Your task to perform on an android device: turn off smart reply in the gmail app Image 0: 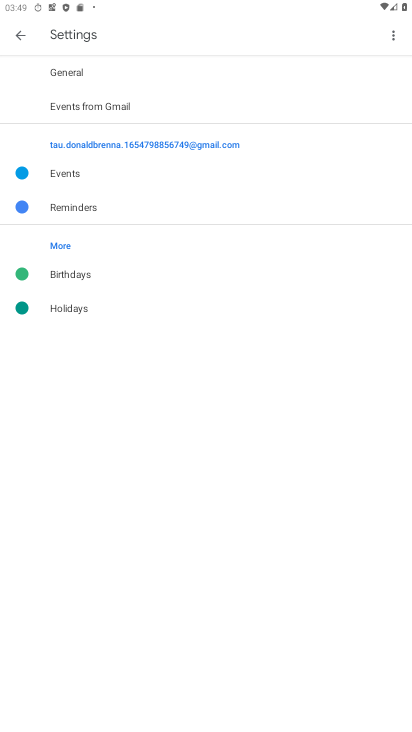
Step 0: press home button
Your task to perform on an android device: turn off smart reply in the gmail app Image 1: 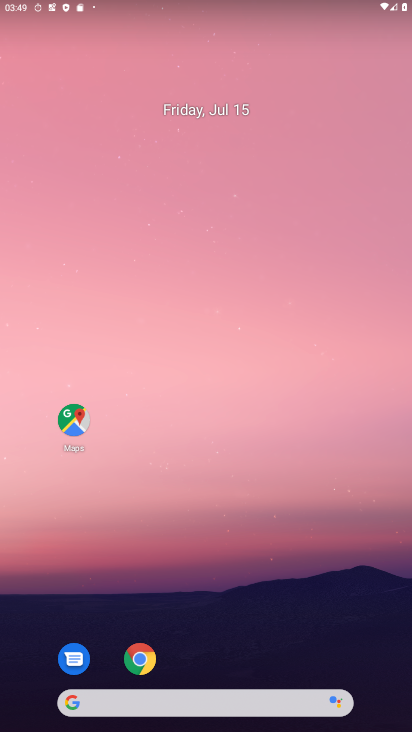
Step 1: drag from (263, 637) to (305, 1)
Your task to perform on an android device: turn off smart reply in the gmail app Image 2: 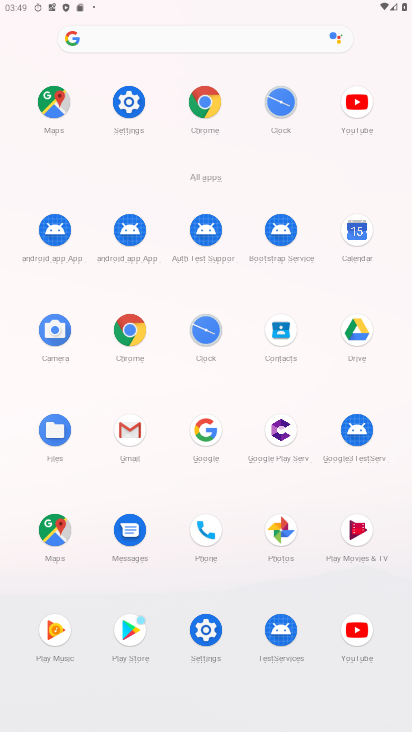
Step 2: click (128, 438)
Your task to perform on an android device: turn off smart reply in the gmail app Image 3: 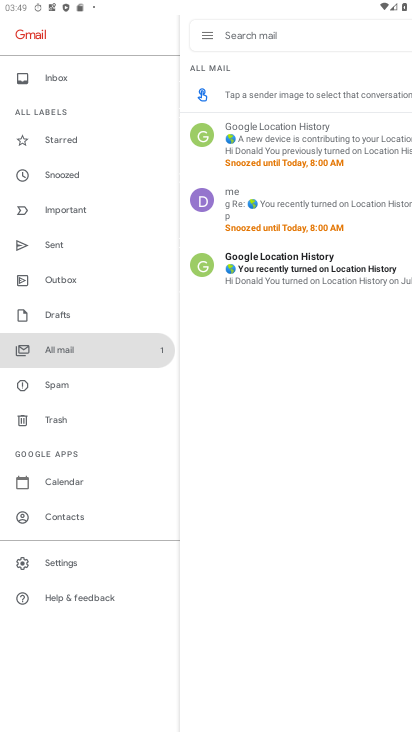
Step 3: click (55, 560)
Your task to perform on an android device: turn off smart reply in the gmail app Image 4: 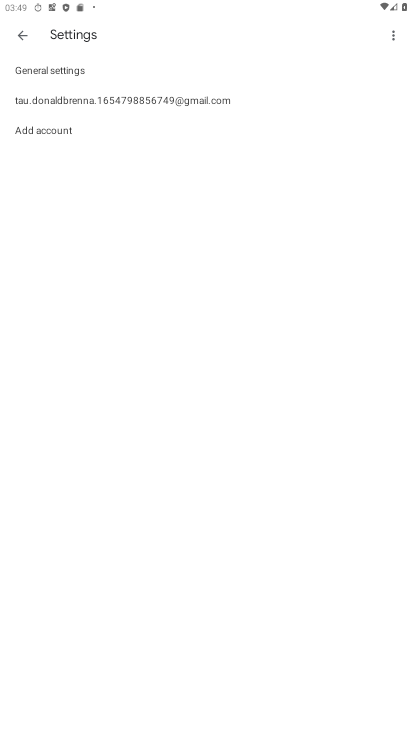
Step 4: click (103, 104)
Your task to perform on an android device: turn off smart reply in the gmail app Image 5: 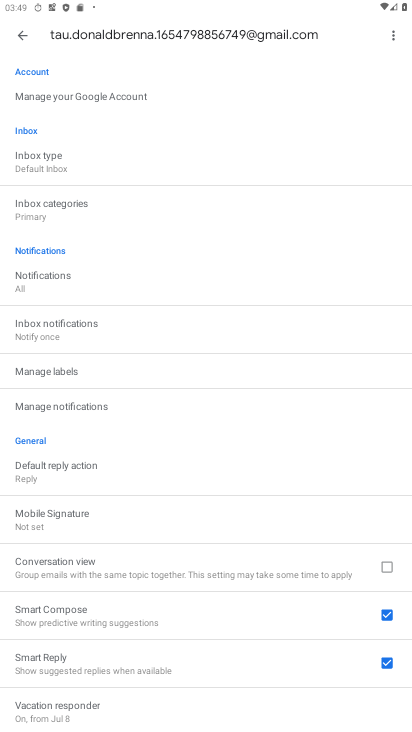
Step 5: click (390, 660)
Your task to perform on an android device: turn off smart reply in the gmail app Image 6: 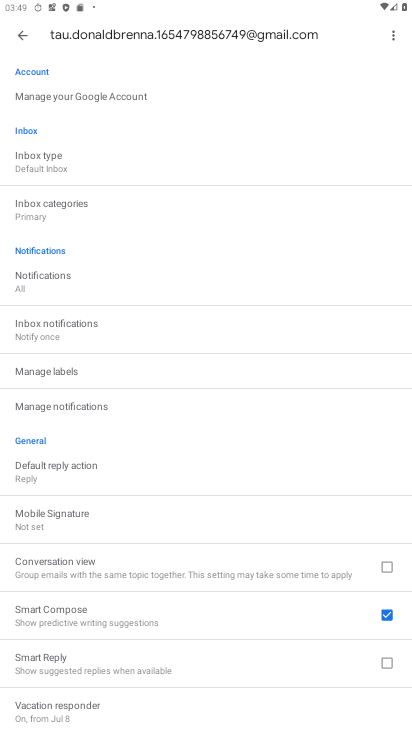
Step 6: task complete